Your task to perform on an android device: open app "Yahoo Mail" (install if not already installed) and enter user name: "lawsuit@inbox.com" and password: "pooch" Image 0: 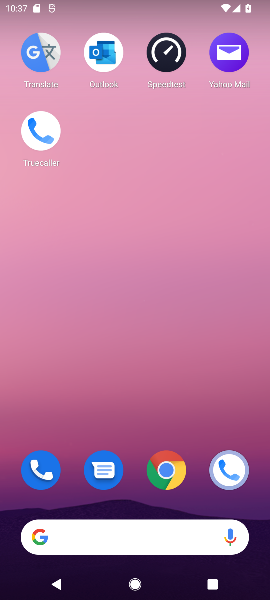
Step 0: drag from (108, 498) to (105, 5)
Your task to perform on an android device: open app "Yahoo Mail" (install if not already installed) and enter user name: "lawsuit@inbox.com" and password: "pooch" Image 1: 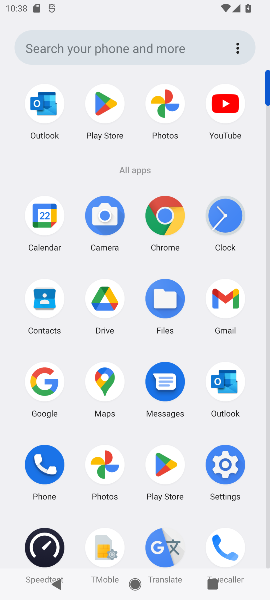
Step 1: click (159, 470)
Your task to perform on an android device: open app "Yahoo Mail" (install if not already installed) and enter user name: "lawsuit@inbox.com" and password: "pooch" Image 2: 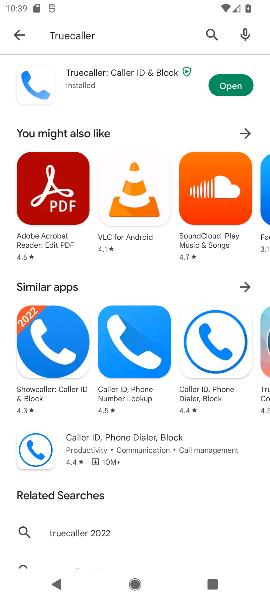
Step 2: press back button
Your task to perform on an android device: open app "Yahoo Mail" (install if not already installed) and enter user name: "lawsuit@inbox.com" and password: "pooch" Image 3: 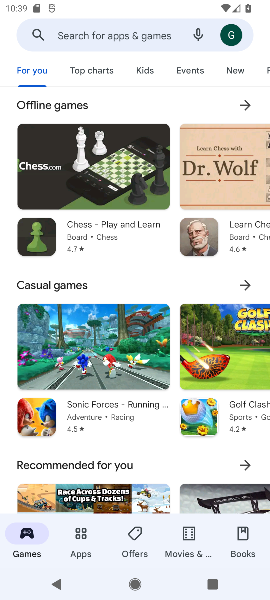
Step 3: click (120, 33)
Your task to perform on an android device: open app "Yahoo Mail" (install if not already installed) and enter user name: "lawsuit@inbox.com" and password: "pooch" Image 4: 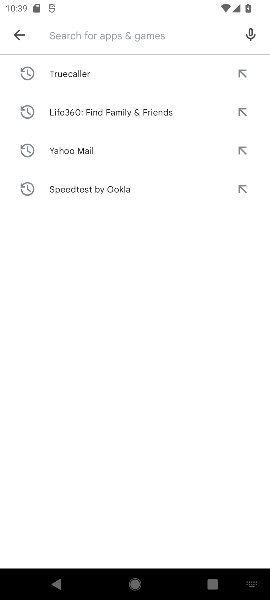
Step 4: type "Yahoo Mail"
Your task to perform on an android device: open app "Yahoo Mail" (install if not already installed) and enter user name: "lawsuit@inbox.com" and password: "pooch" Image 5: 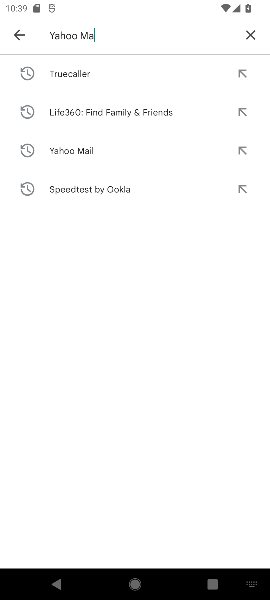
Step 5: press enter
Your task to perform on an android device: open app "Yahoo Mail" (install if not already installed) and enter user name: "lawsuit@inbox.com" and password: "pooch" Image 6: 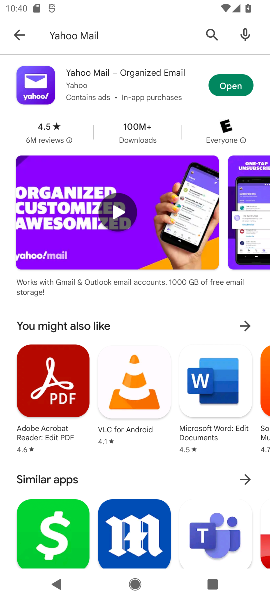
Step 6: click (227, 89)
Your task to perform on an android device: open app "Yahoo Mail" (install if not already installed) and enter user name: "lawsuit@inbox.com" and password: "pooch" Image 7: 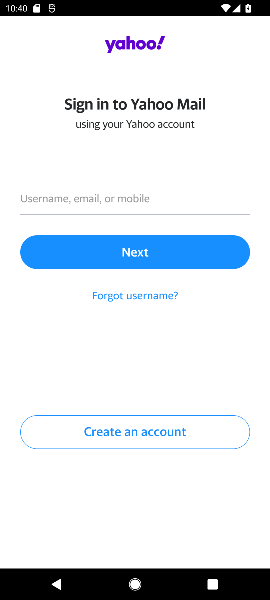
Step 7: click (86, 182)
Your task to perform on an android device: open app "Yahoo Mail" (install if not already installed) and enter user name: "lawsuit@inbox.com" and password: "pooch" Image 8: 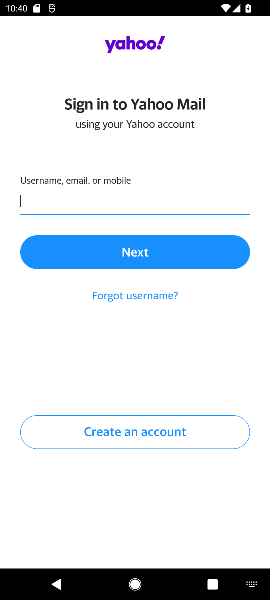
Step 8: type "lawsuit@inbox.com"
Your task to perform on an android device: open app "Yahoo Mail" (install if not already installed) and enter user name: "lawsuit@inbox.com" and password: "pooch" Image 9: 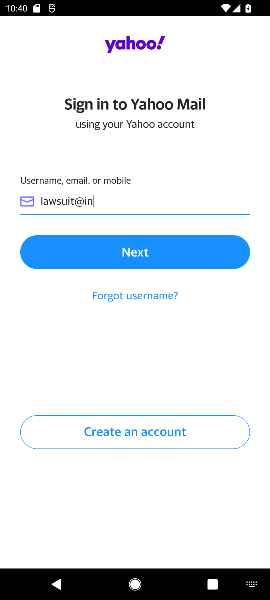
Step 9: press enter
Your task to perform on an android device: open app "Yahoo Mail" (install if not already installed) and enter user name: "lawsuit@inbox.com" and password: "pooch" Image 10: 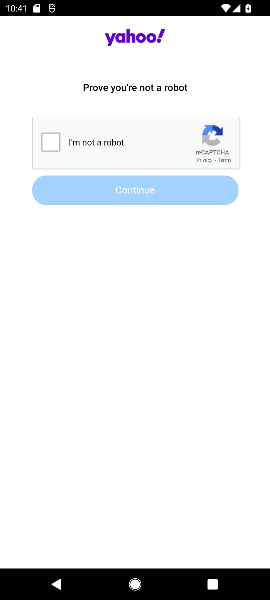
Step 10: click (60, 137)
Your task to perform on an android device: open app "Yahoo Mail" (install if not already installed) and enter user name: "lawsuit@inbox.com" and password: "pooch" Image 11: 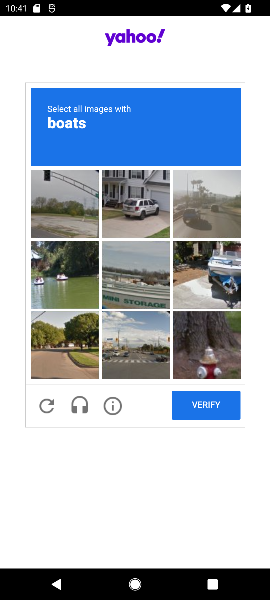
Step 11: click (77, 283)
Your task to perform on an android device: open app "Yahoo Mail" (install if not already installed) and enter user name: "lawsuit@inbox.com" and password: "pooch" Image 12: 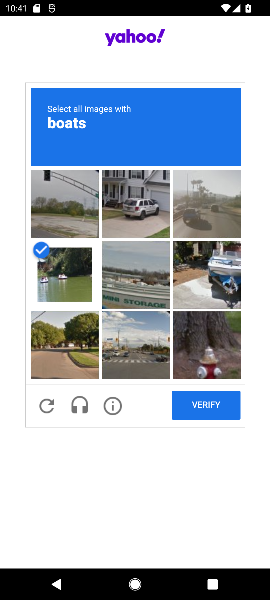
Step 12: click (209, 273)
Your task to perform on an android device: open app "Yahoo Mail" (install if not already installed) and enter user name: "lawsuit@inbox.com" and password: "pooch" Image 13: 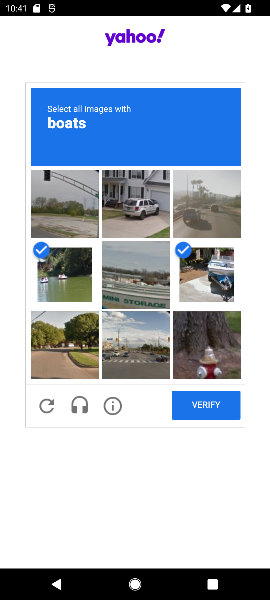
Step 13: click (123, 279)
Your task to perform on an android device: open app "Yahoo Mail" (install if not already installed) and enter user name: "lawsuit@inbox.com" and password: "pooch" Image 14: 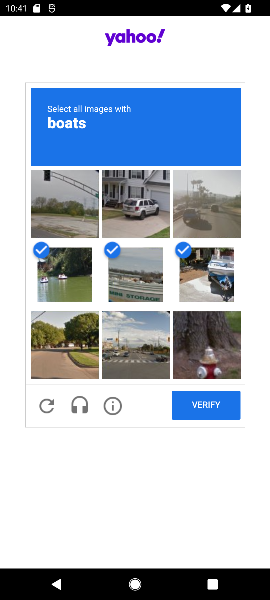
Step 14: click (210, 404)
Your task to perform on an android device: open app "Yahoo Mail" (install if not already installed) and enter user name: "lawsuit@inbox.com" and password: "pooch" Image 15: 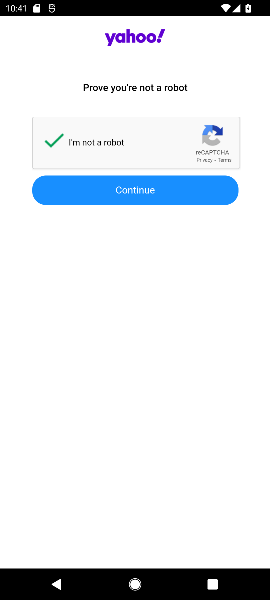
Step 15: click (133, 190)
Your task to perform on an android device: open app "Yahoo Mail" (install if not already installed) and enter user name: "lawsuit@inbox.com" and password: "pooch" Image 16: 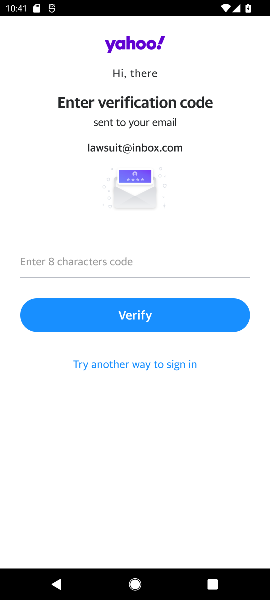
Step 16: click (148, 249)
Your task to perform on an android device: open app "Yahoo Mail" (install if not already installed) and enter user name: "lawsuit@inbox.com" and password: "pooch" Image 17: 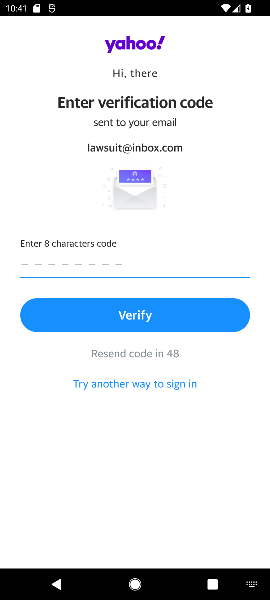
Step 17: type "pooch"
Your task to perform on an android device: open app "Yahoo Mail" (install if not already installed) and enter user name: "lawsuit@inbox.com" and password: "pooch" Image 18: 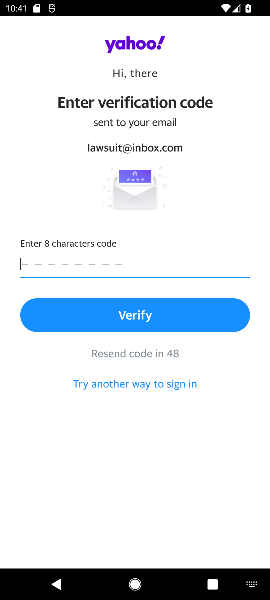
Step 18: press enter
Your task to perform on an android device: open app "Yahoo Mail" (install if not already installed) and enter user name: "lawsuit@inbox.com" and password: "pooch" Image 19: 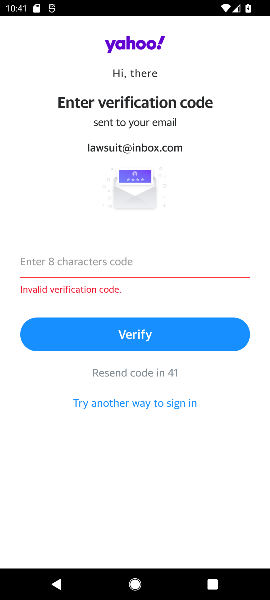
Step 19: task complete